Your task to perform on an android device: toggle data saver in the chrome app Image 0: 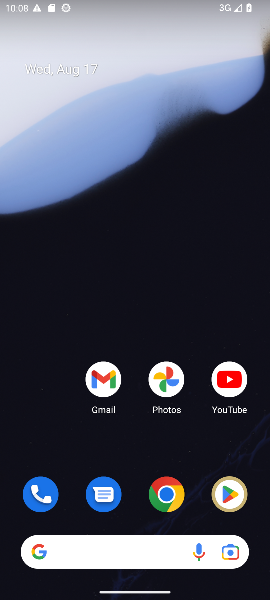
Step 0: drag from (131, 453) to (153, 5)
Your task to perform on an android device: toggle data saver in the chrome app Image 1: 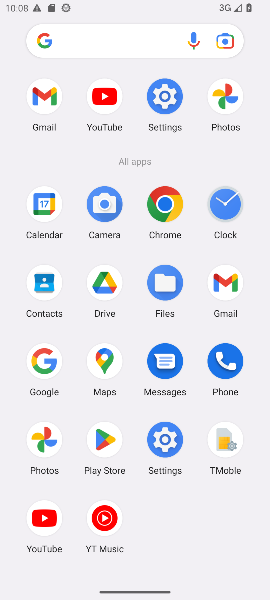
Step 1: click (162, 197)
Your task to perform on an android device: toggle data saver in the chrome app Image 2: 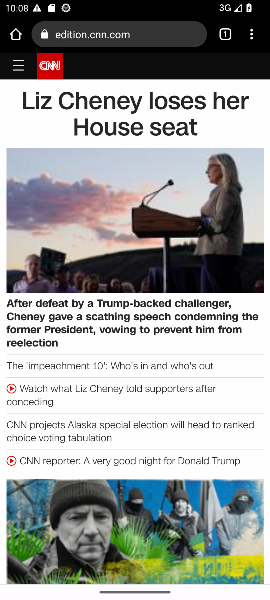
Step 2: task complete